Your task to perform on an android device: check battery use Image 0: 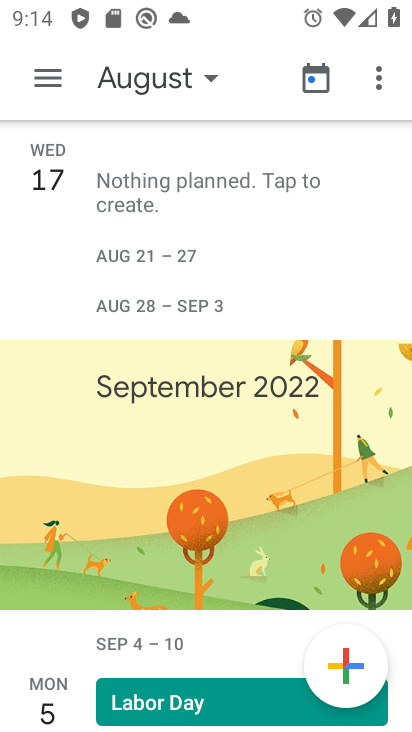
Step 0: press home button
Your task to perform on an android device: check battery use Image 1: 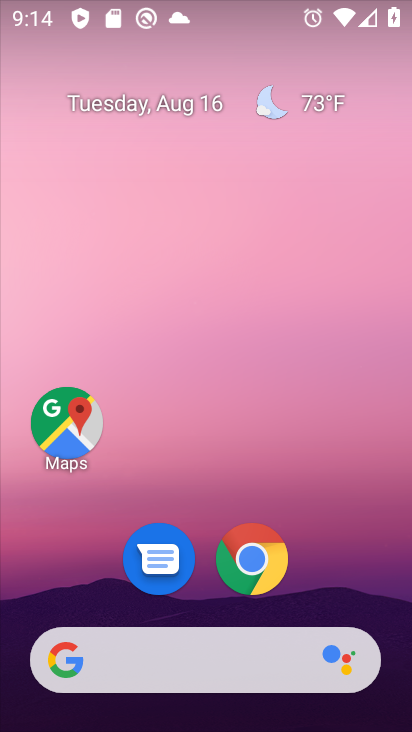
Step 1: drag from (164, 673) to (163, 124)
Your task to perform on an android device: check battery use Image 2: 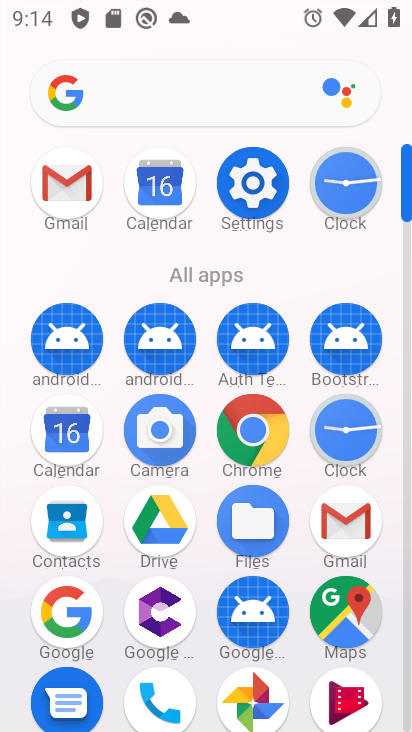
Step 2: click (252, 184)
Your task to perform on an android device: check battery use Image 3: 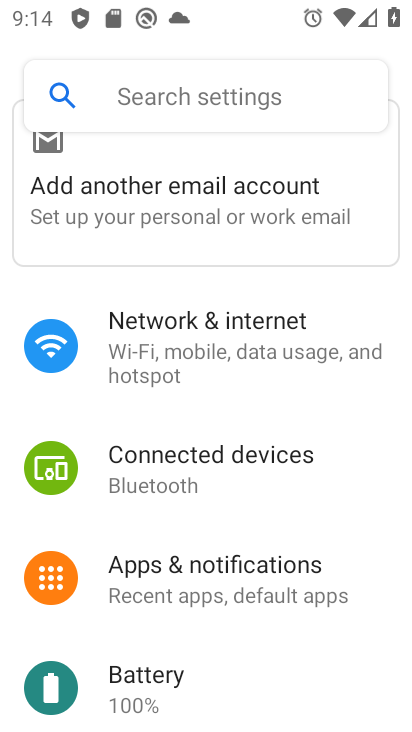
Step 3: click (147, 679)
Your task to perform on an android device: check battery use Image 4: 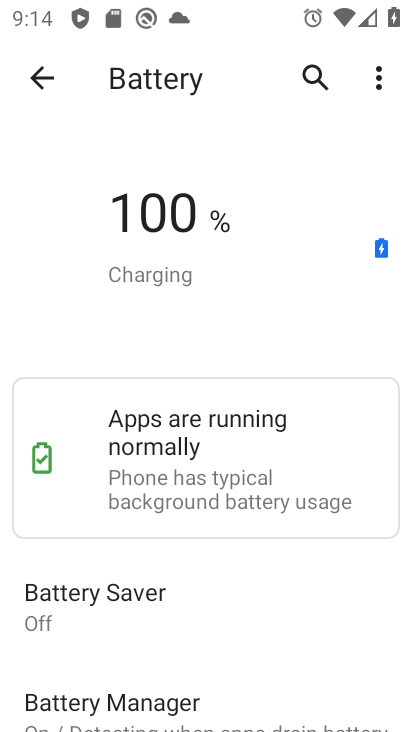
Step 4: click (385, 76)
Your task to perform on an android device: check battery use Image 5: 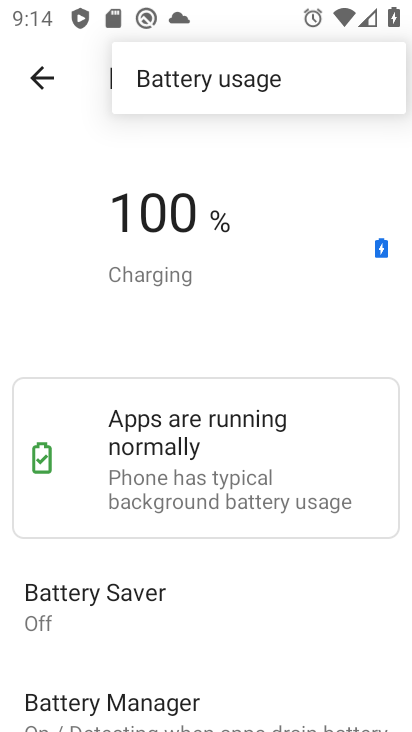
Step 5: click (218, 91)
Your task to perform on an android device: check battery use Image 6: 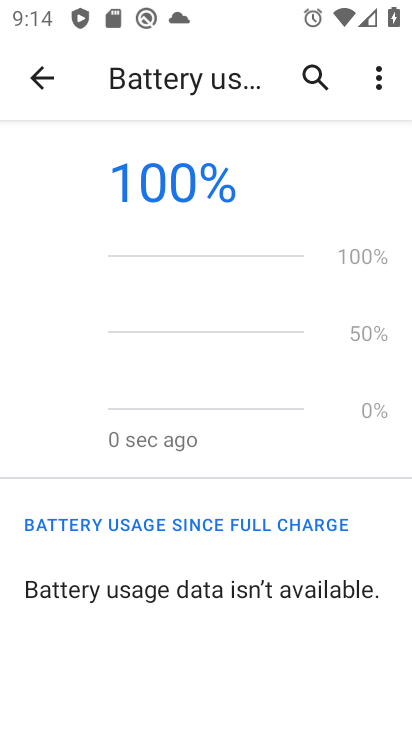
Step 6: task complete